Your task to perform on an android device: Open Reddit.com Image 0: 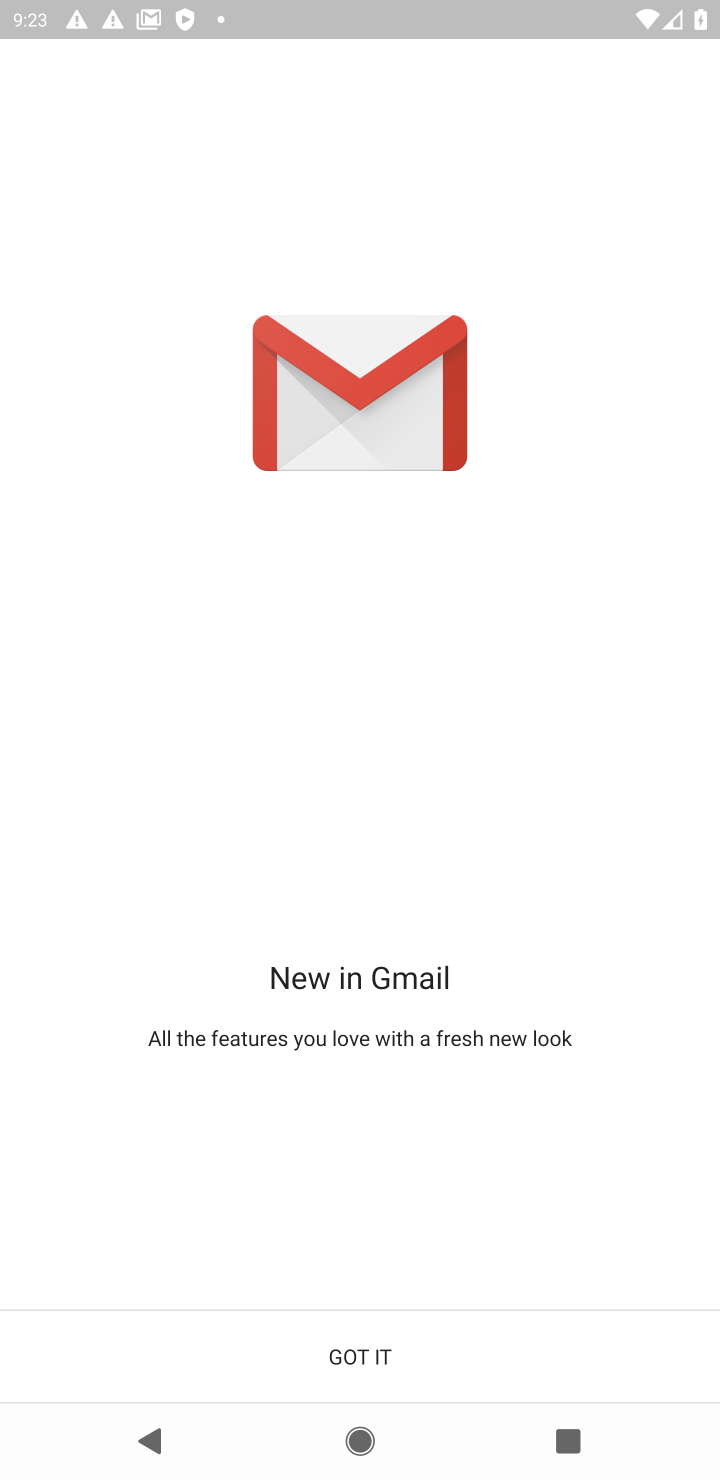
Step 0: press home button
Your task to perform on an android device: Open Reddit.com Image 1: 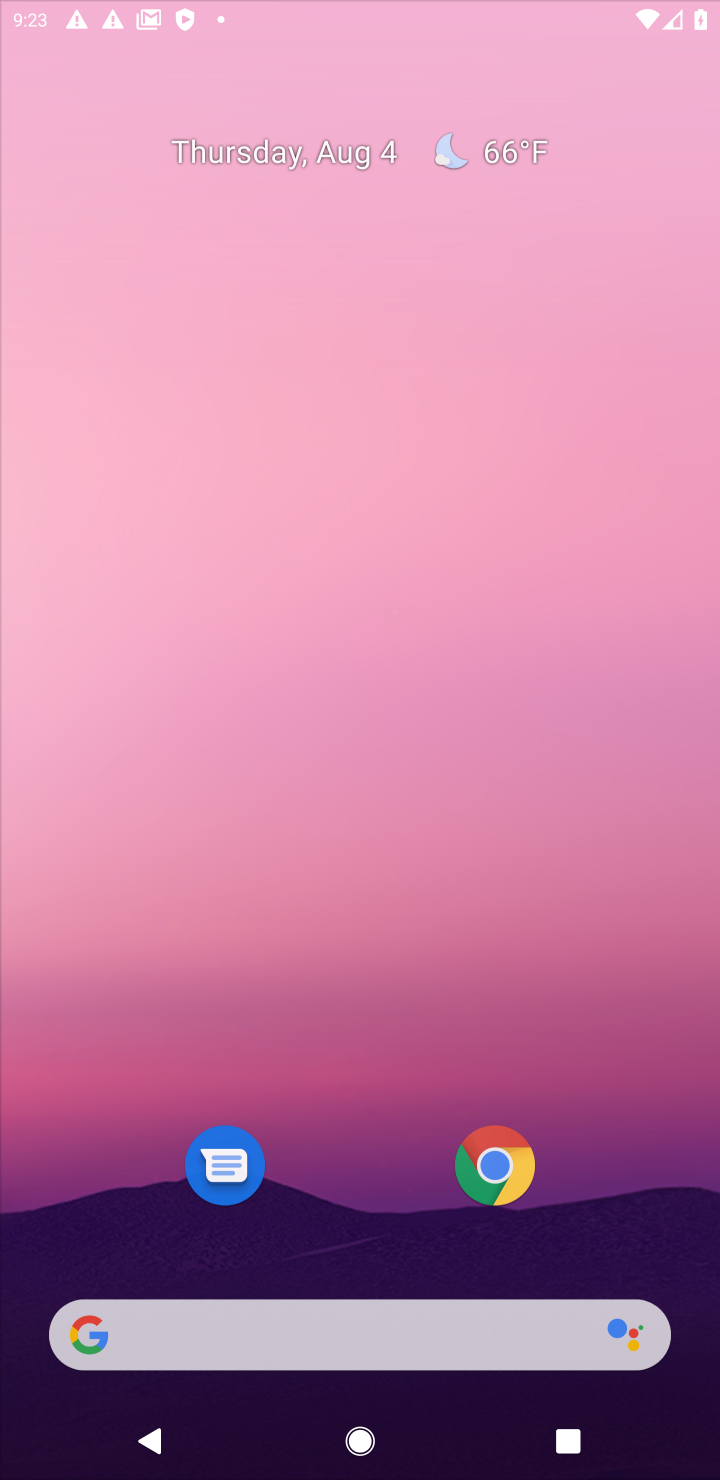
Step 1: drag from (433, 1141) to (493, 18)
Your task to perform on an android device: Open Reddit.com Image 2: 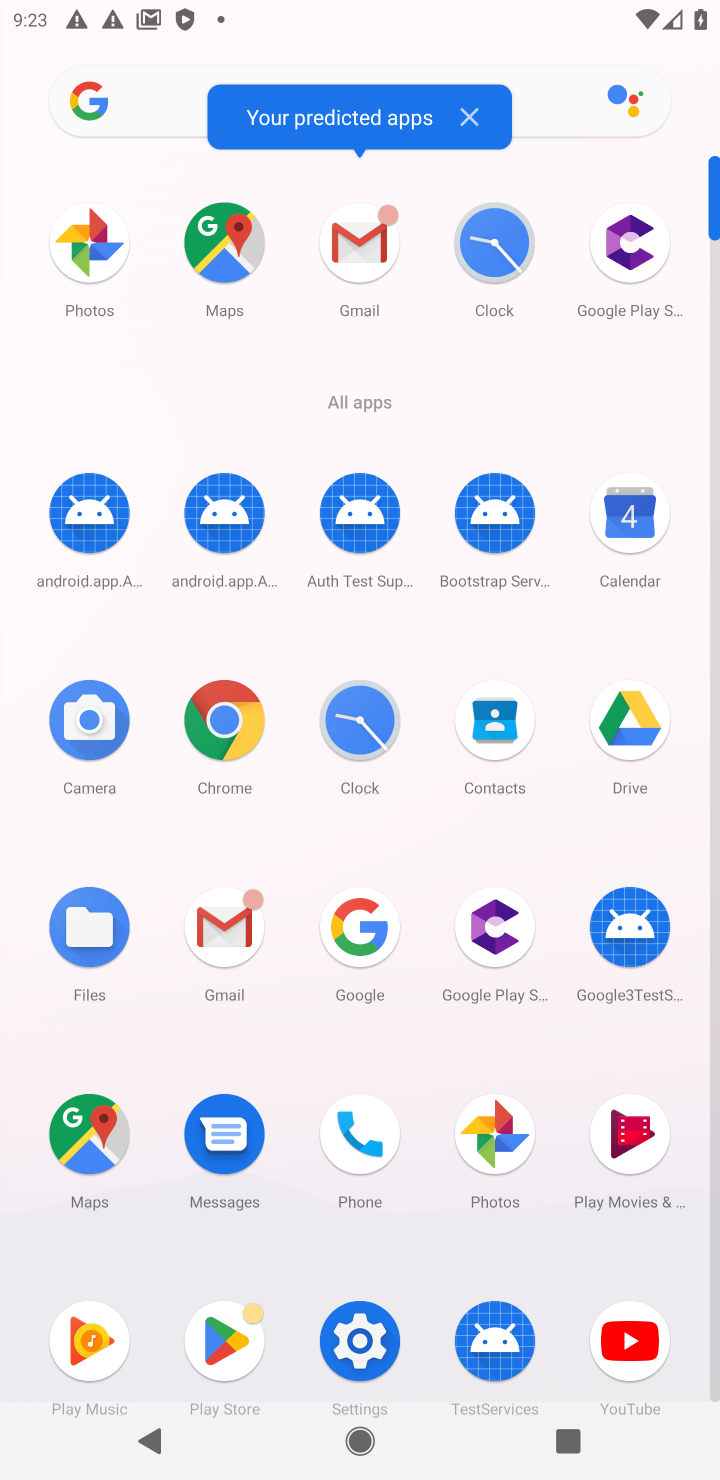
Step 2: click (208, 739)
Your task to perform on an android device: Open Reddit.com Image 3: 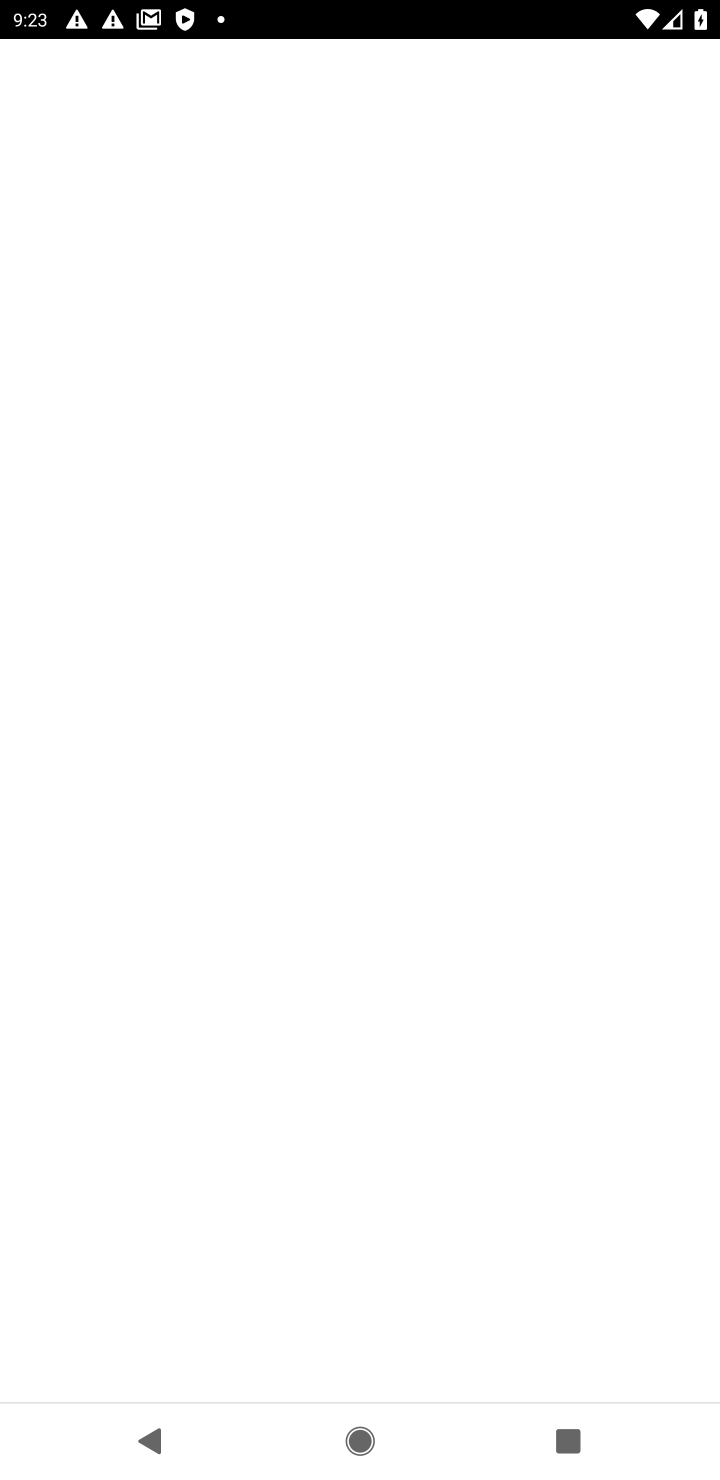
Step 3: click (227, 731)
Your task to perform on an android device: Open Reddit.com Image 4: 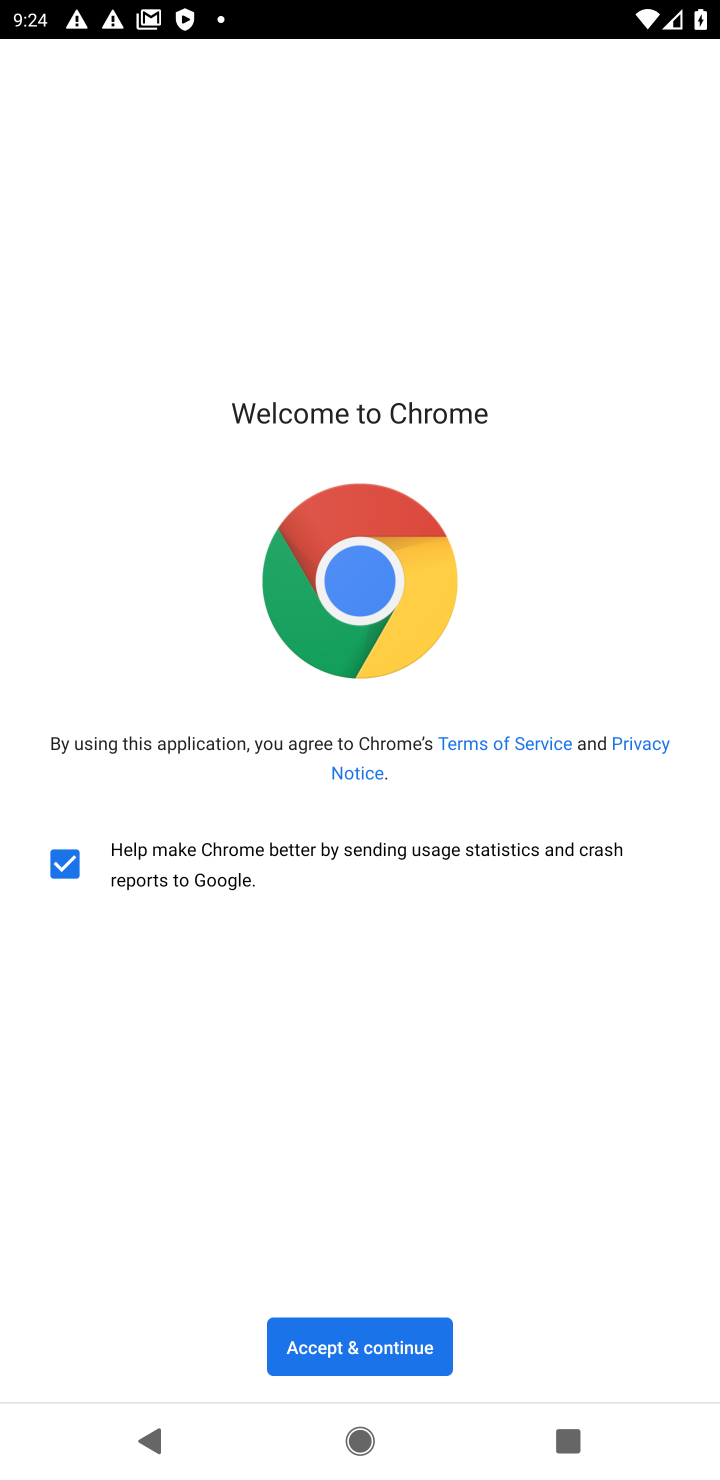
Step 4: click (434, 1345)
Your task to perform on an android device: Open Reddit.com Image 5: 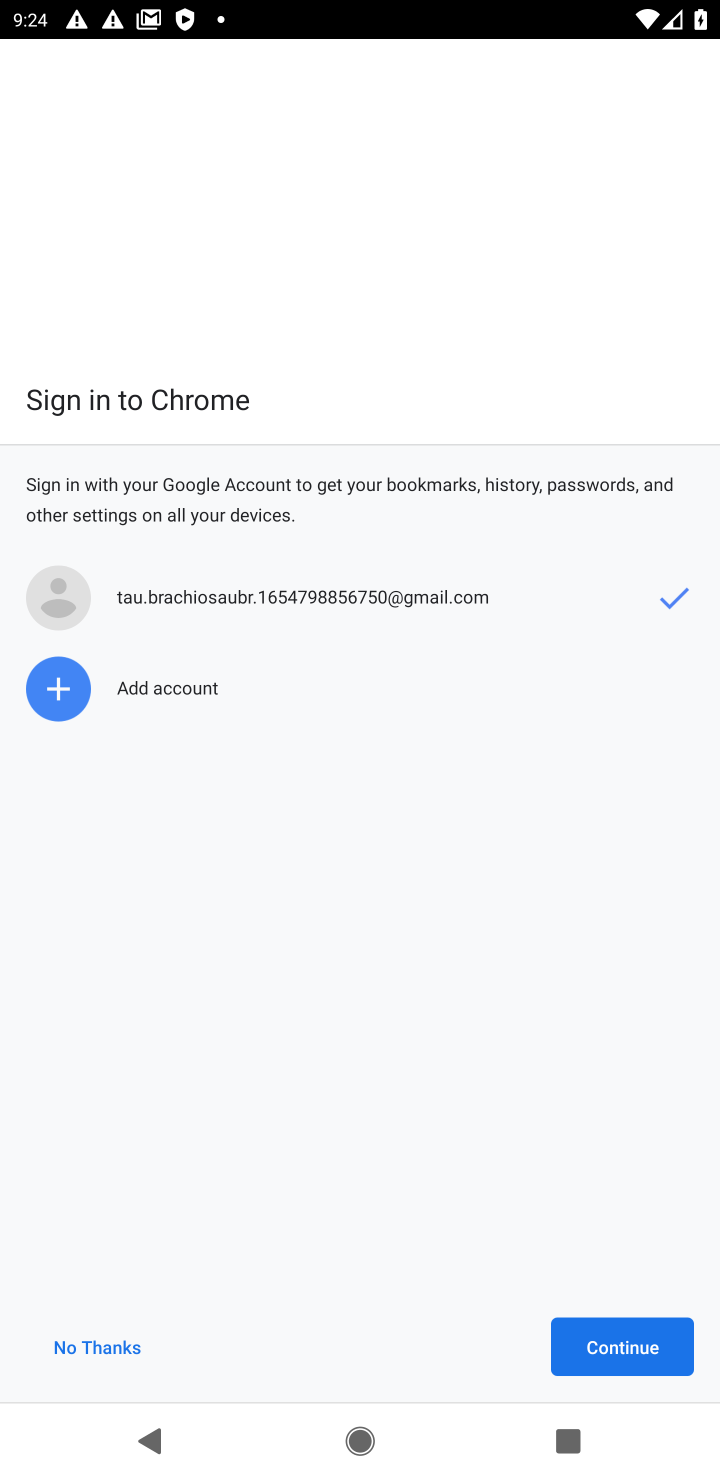
Step 5: click (86, 1383)
Your task to perform on an android device: Open Reddit.com Image 6: 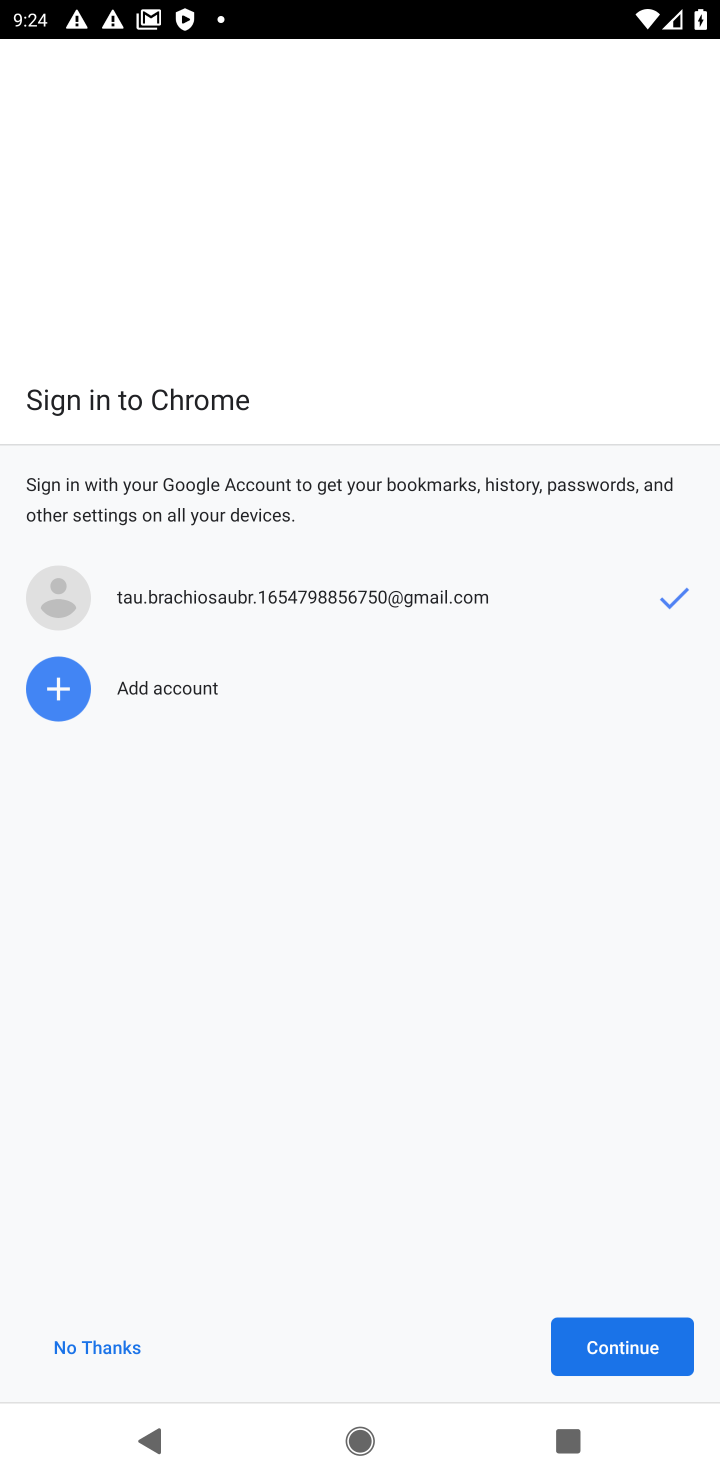
Step 6: click (120, 1364)
Your task to perform on an android device: Open Reddit.com Image 7: 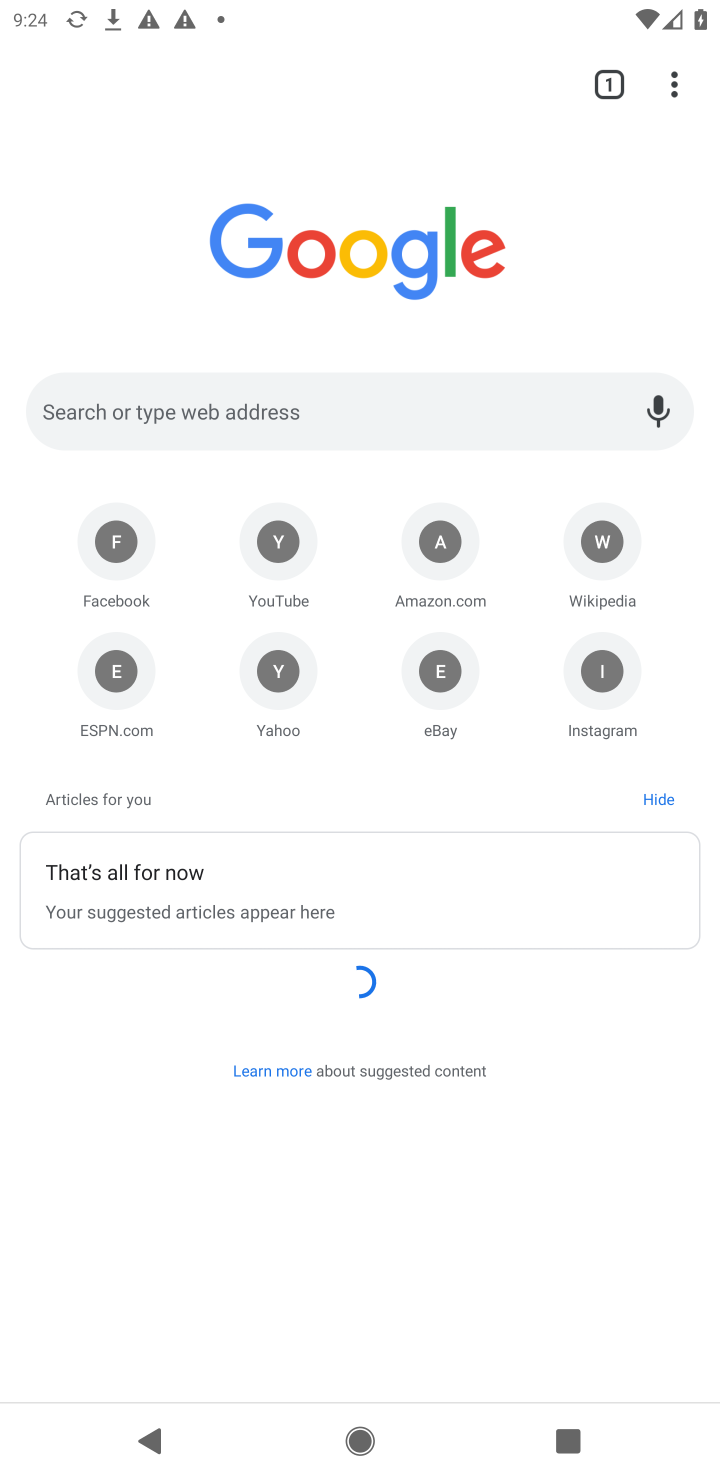
Step 7: click (311, 425)
Your task to perform on an android device: Open Reddit.com Image 8: 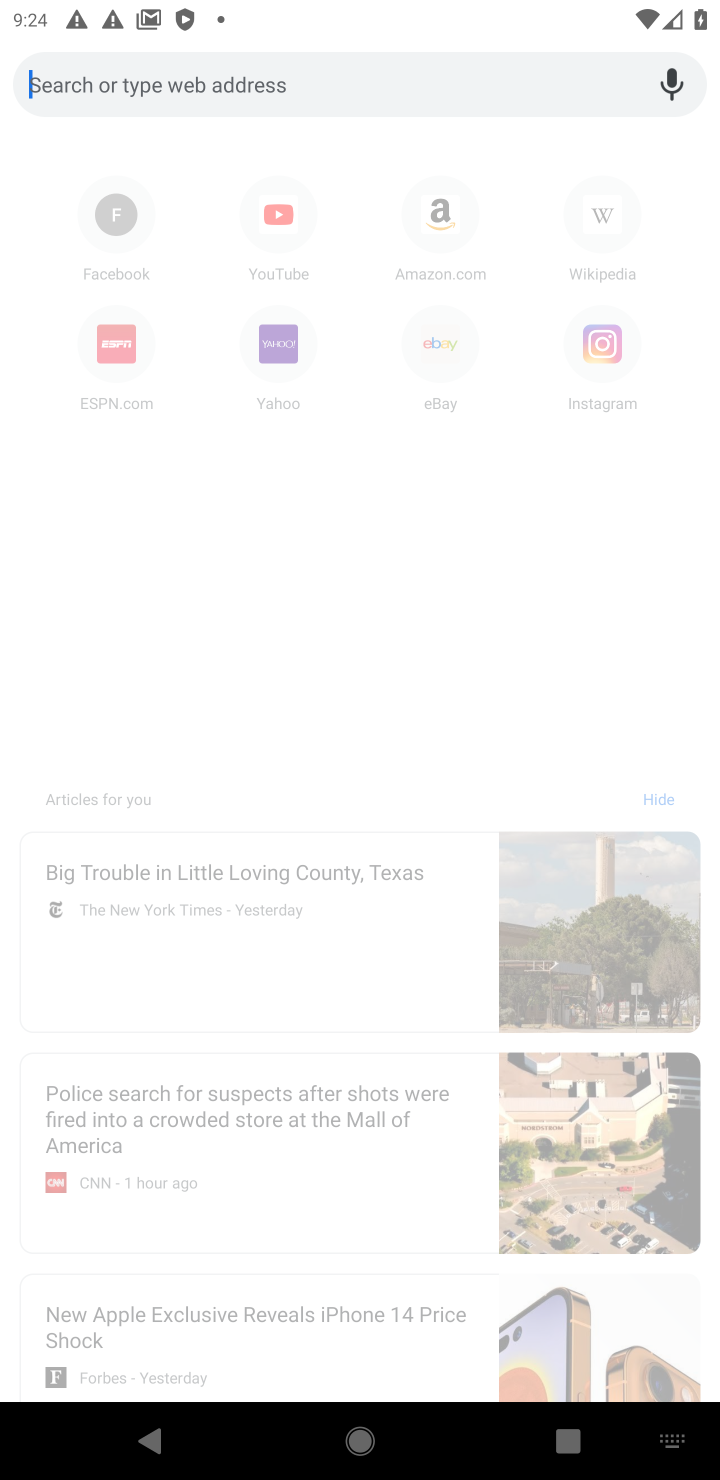
Step 8: type "Reddit.com"
Your task to perform on an android device: Open Reddit.com Image 9: 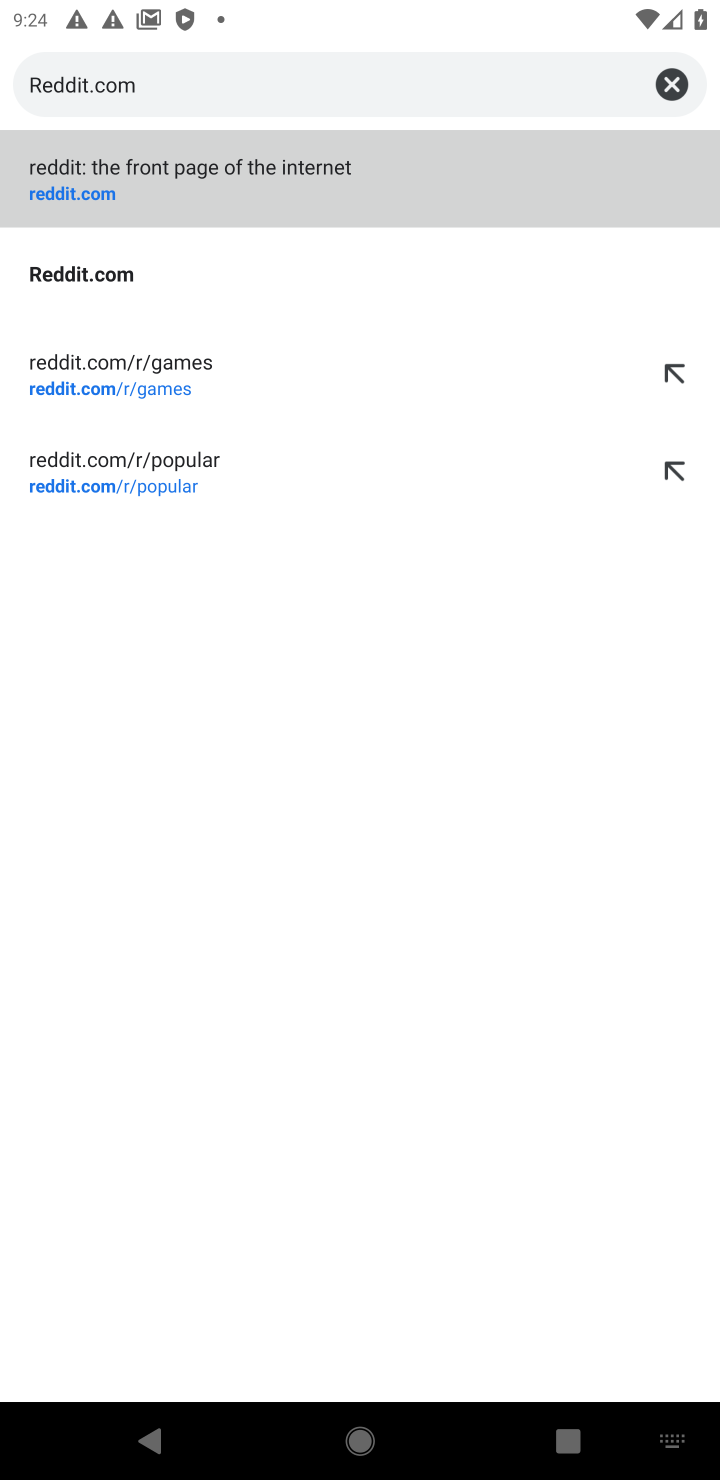
Step 9: click (145, 191)
Your task to perform on an android device: Open Reddit.com Image 10: 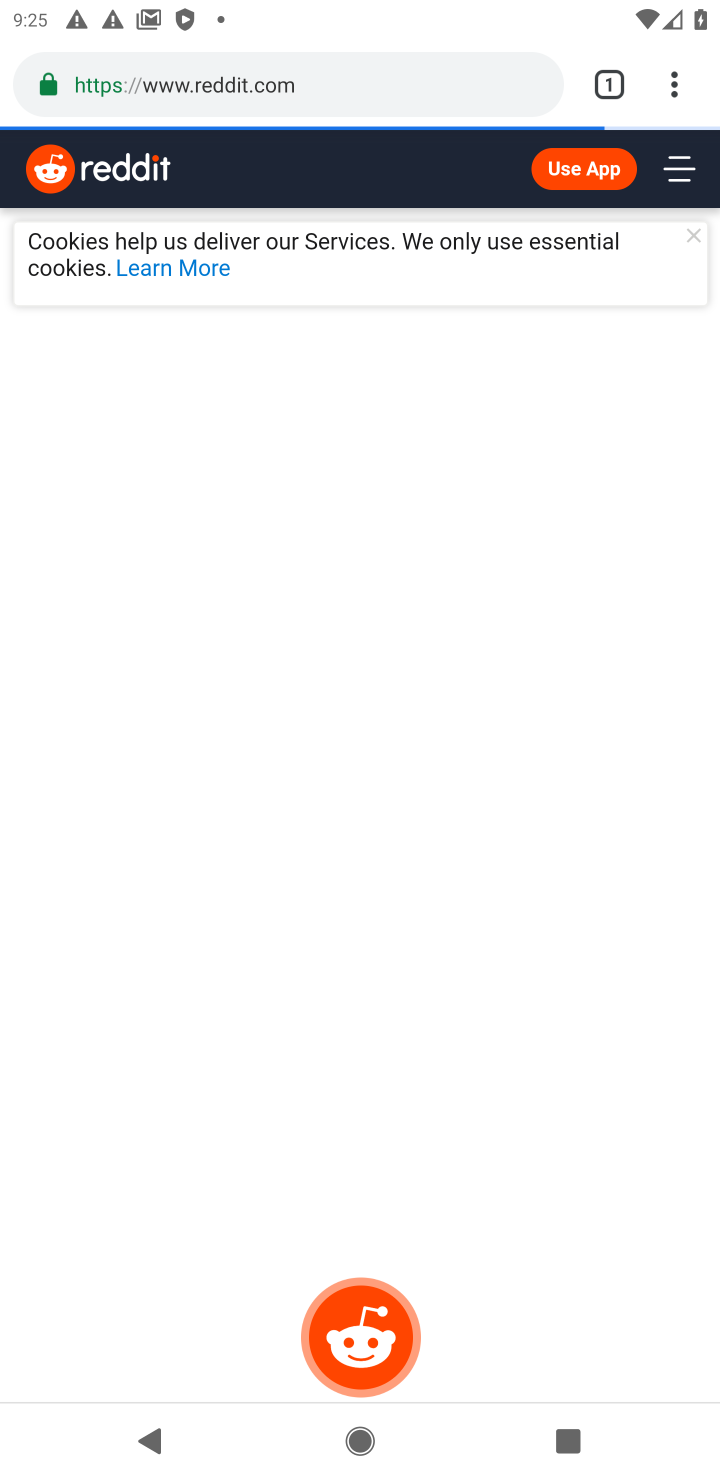
Step 10: task complete